Your task to perform on an android device: create a new album in the google photos Image 0: 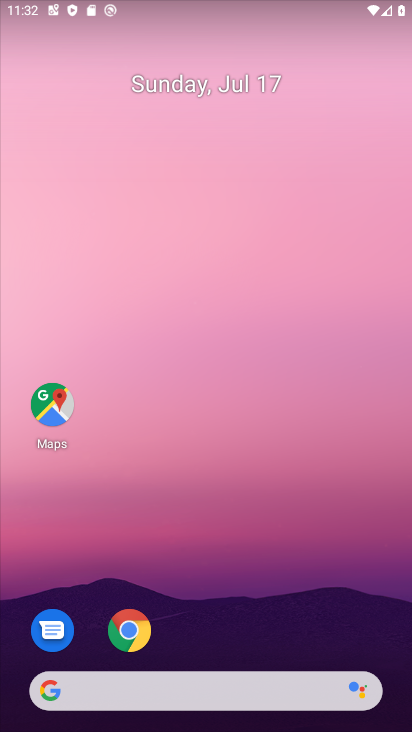
Step 0: drag from (259, 609) to (274, 81)
Your task to perform on an android device: create a new album in the google photos Image 1: 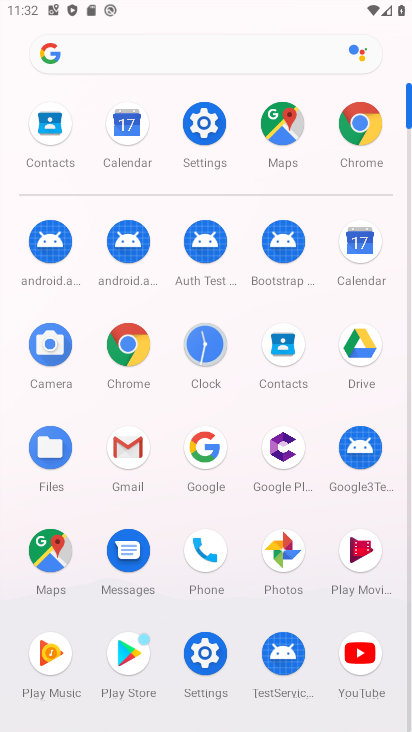
Step 1: click (279, 542)
Your task to perform on an android device: create a new album in the google photos Image 2: 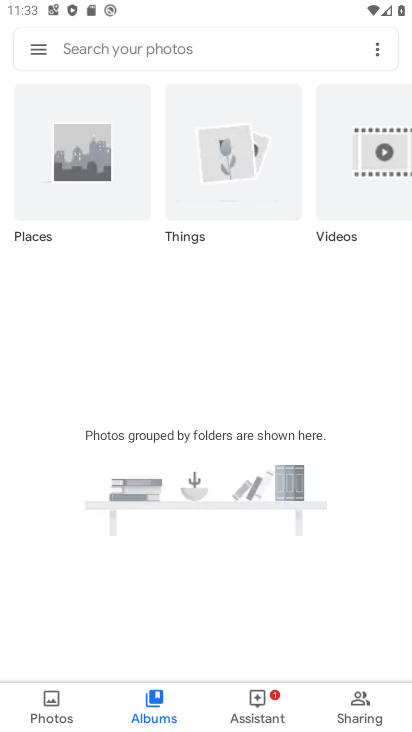
Step 2: drag from (221, 288) to (227, 414)
Your task to perform on an android device: create a new album in the google photos Image 3: 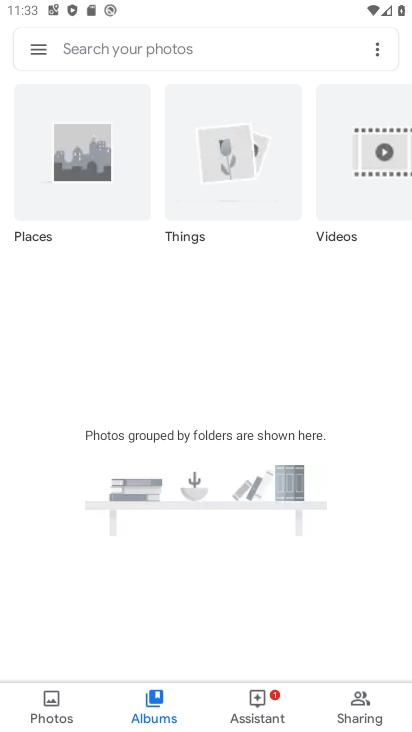
Step 3: drag from (164, 579) to (203, 343)
Your task to perform on an android device: create a new album in the google photos Image 4: 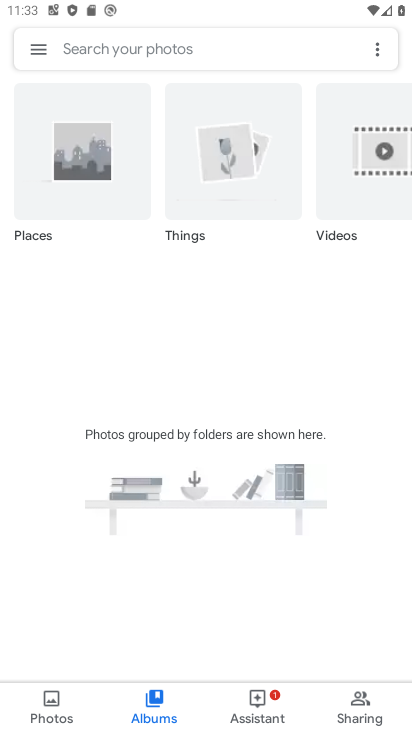
Step 4: drag from (222, 341) to (222, 512)
Your task to perform on an android device: create a new album in the google photos Image 5: 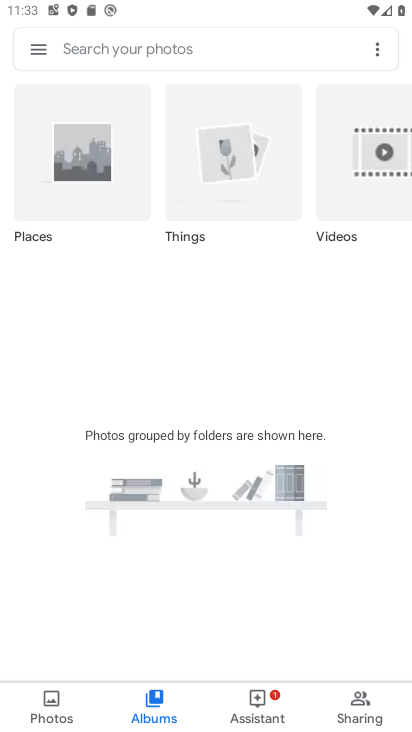
Step 5: click (35, 699)
Your task to perform on an android device: create a new album in the google photos Image 6: 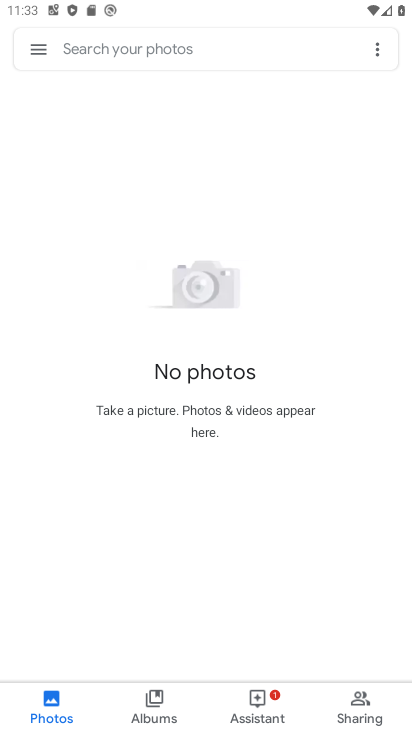
Step 6: task complete